Your task to perform on an android device: Go to privacy settings Image 0: 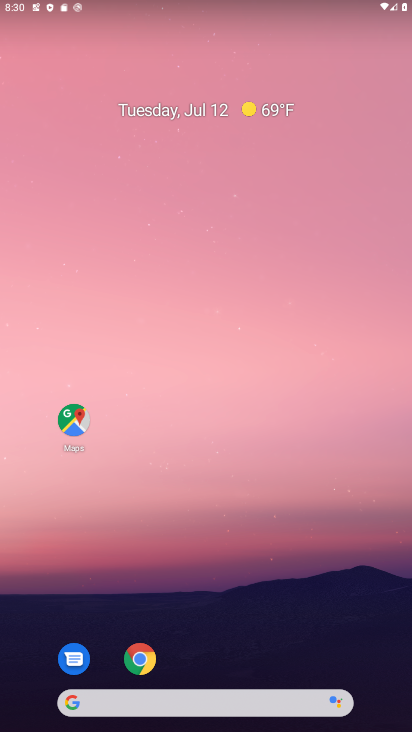
Step 0: drag from (204, 681) to (202, 194)
Your task to perform on an android device: Go to privacy settings Image 1: 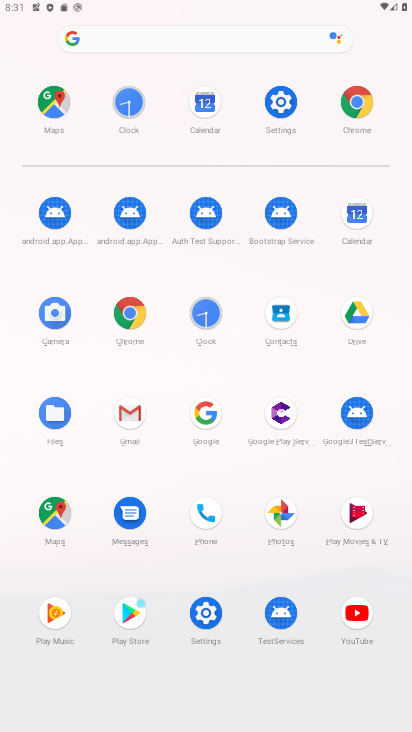
Step 1: click (285, 103)
Your task to perform on an android device: Go to privacy settings Image 2: 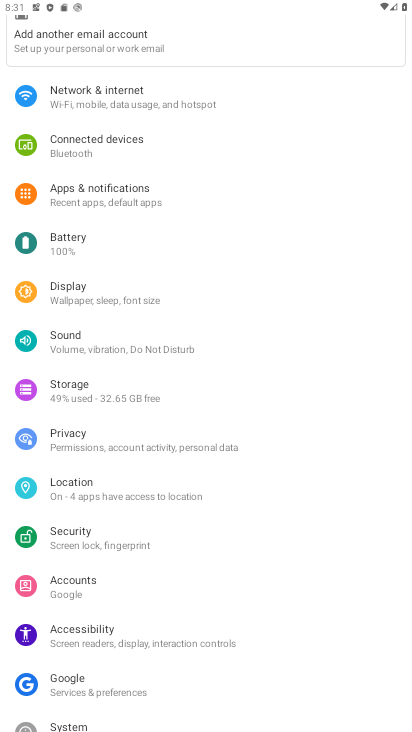
Step 2: click (74, 443)
Your task to perform on an android device: Go to privacy settings Image 3: 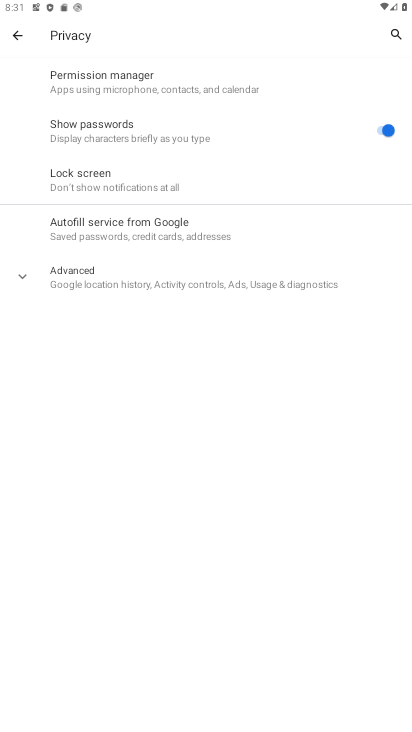
Step 3: task complete